Your task to perform on an android device: Open the map Image 0: 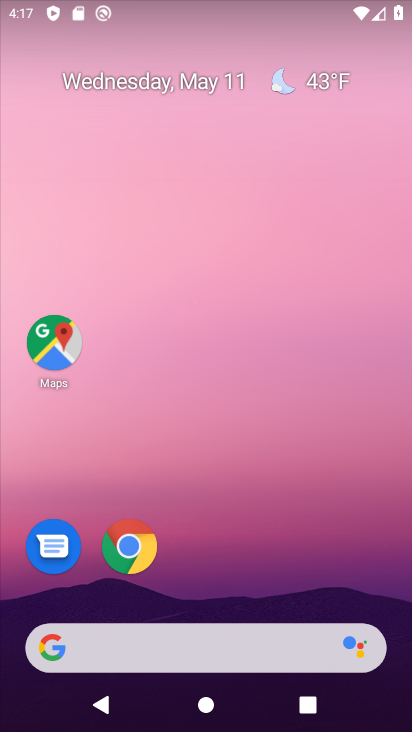
Step 0: click (45, 350)
Your task to perform on an android device: Open the map Image 1: 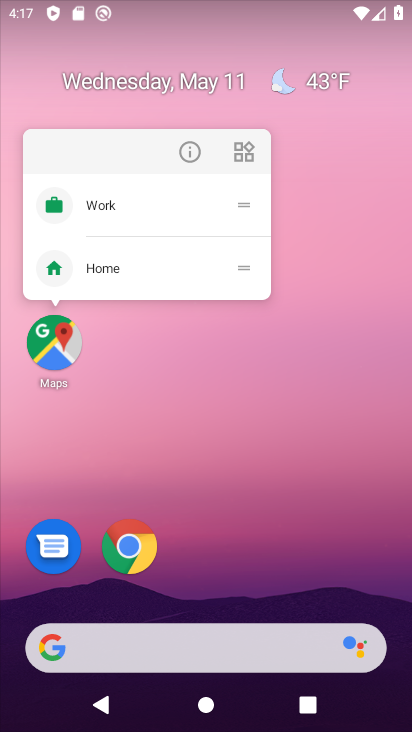
Step 1: click (45, 350)
Your task to perform on an android device: Open the map Image 2: 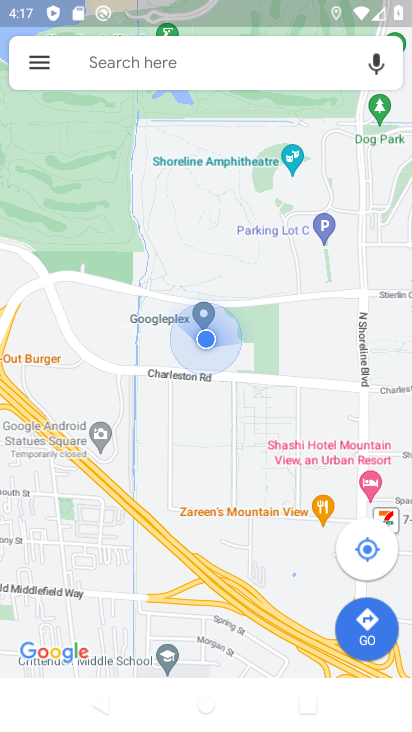
Step 2: task complete